Your task to perform on an android device: turn pop-ups on in chrome Image 0: 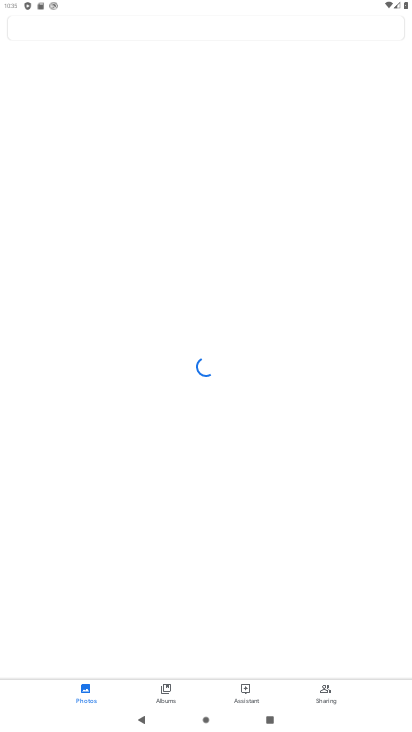
Step 0: press home button
Your task to perform on an android device: turn pop-ups on in chrome Image 1: 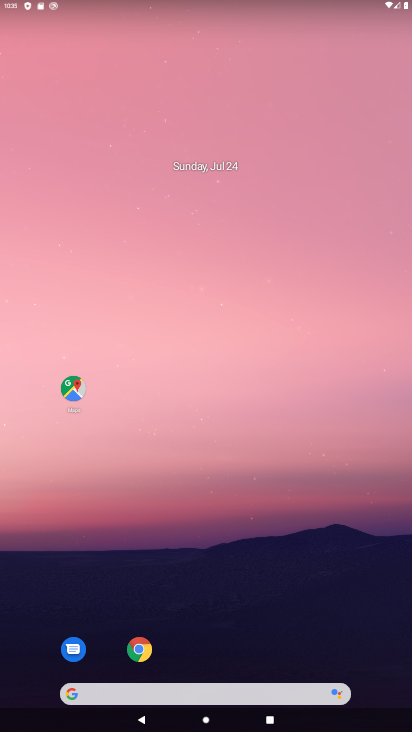
Step 1: click (145, 647)
Your task to perform on an android device: turn pop-ups on in chrome Image 2: 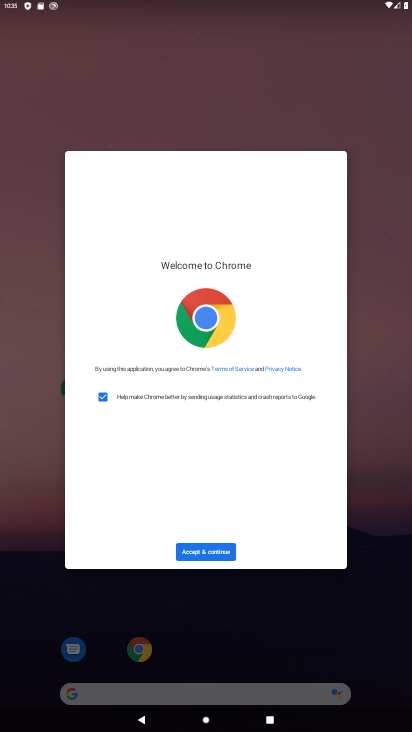
Step 2: click (221, 549)
Your task to perform on an android device: turn pop-ups on in chrome Image 3: 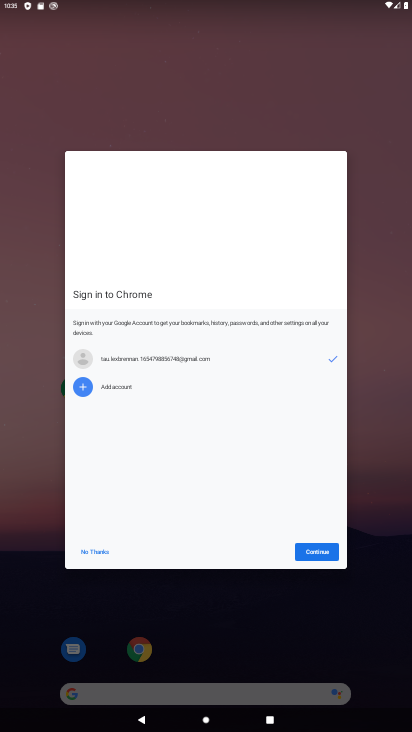
Step 3: click (326, 556)
Your task to perform on an android device: turn pop-ups on in chrome Image 4: 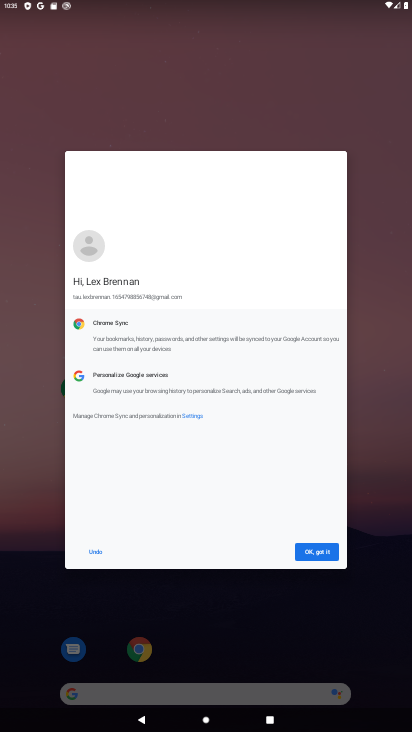
Step 4: click (326, 556)
Your task to perform on an android device: turn pop-ups on in chrome Image 5: 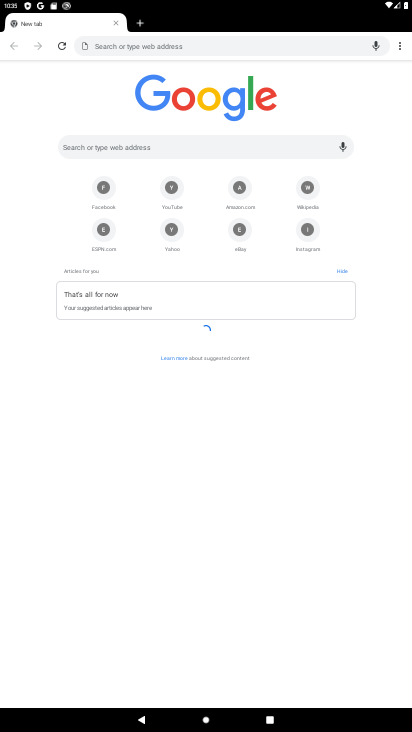
Step 5: click (399, 41)
Your task to perform on an android device: turn pop-ups on in chrome Image 6: 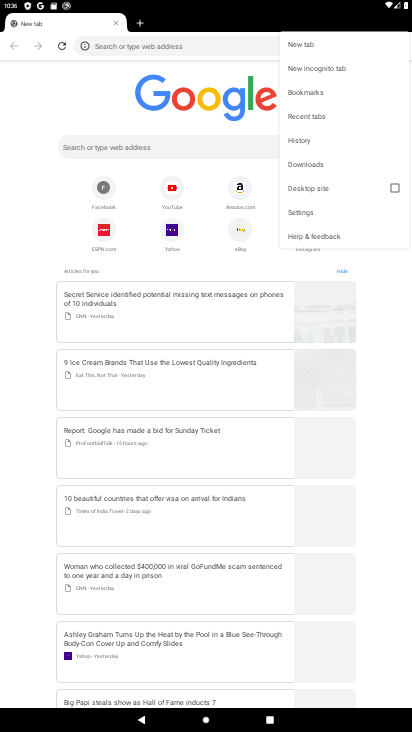
Step 6: click (305, 211)
Your task to perform on an android device: turn pop-ups on in chrome Image 7: 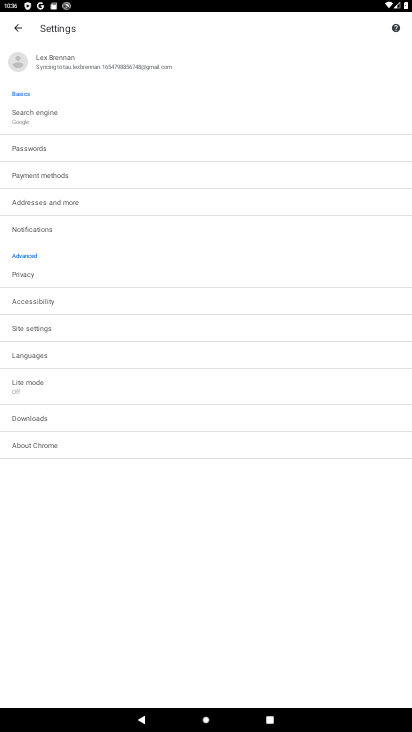
Step 7: click (70, 327)
Your task to perform on an android device: turn pop-ups on in chrome Image 8: 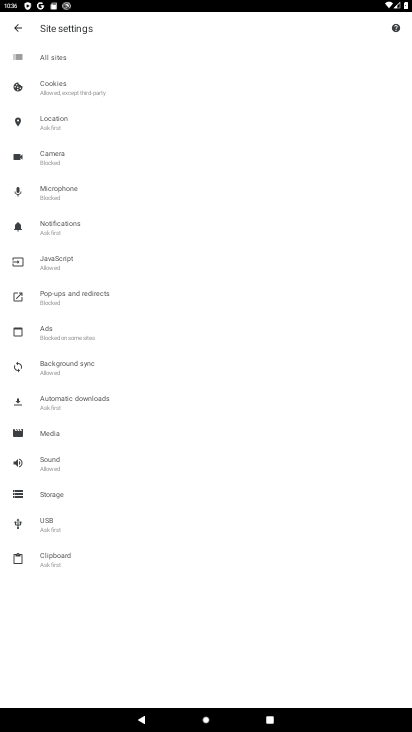
Step 8: click (71, 298)
Your task to perform on an android device: turn pop-ups on in chrome Image 9: 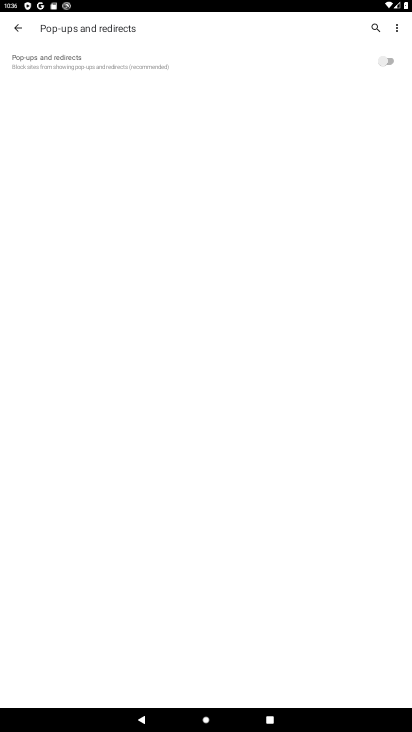
Step 9: click (400, 54)
Your task to perform on an android device: turn pop-ups on in chrome Image 10: 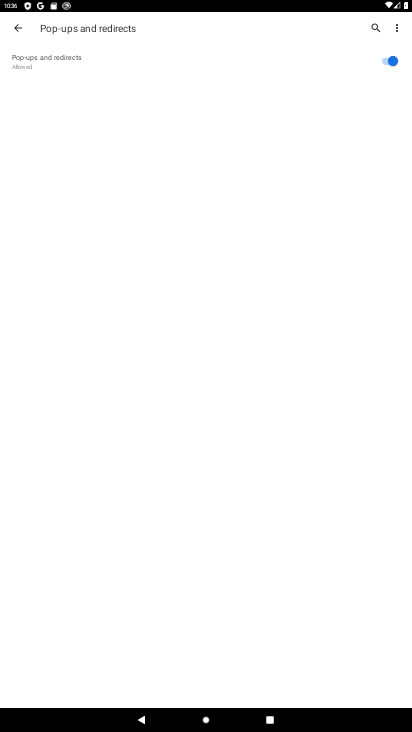
Step 10: task complete